Your task to perform on an android device: Open calendar and show me the fourth week of next month Image 0: 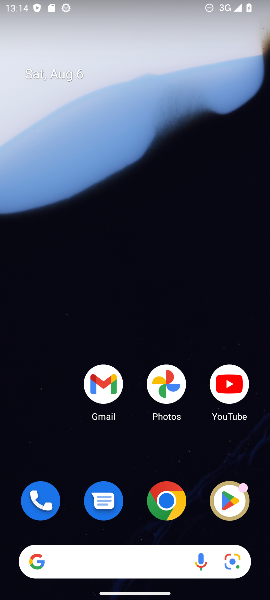
Step 0: drag from (128, 456) to (143, 95)
Your task to perform on an android device: Open calendar and show me the fourth week of next month Image 1: 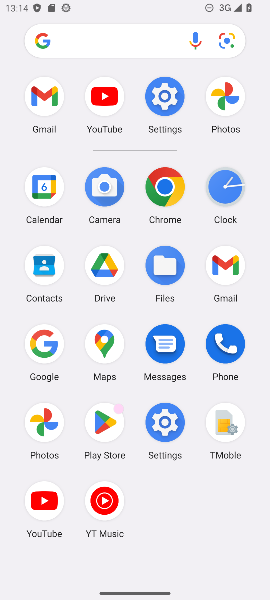
Step 1: click (55, 220)
Your task to perform on an android device: Open calendar and show me the fourth week of next month Image 2: 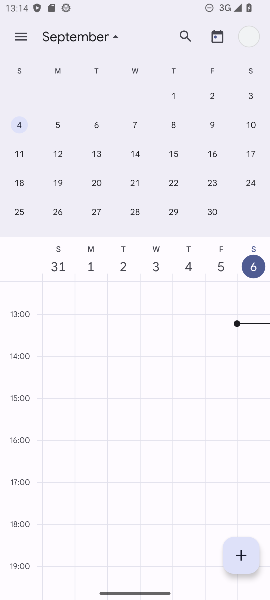
Step 2: click (23, 184)
Your task to perform on an android device: Open calendar and show me the fourth week of next month Image 3: 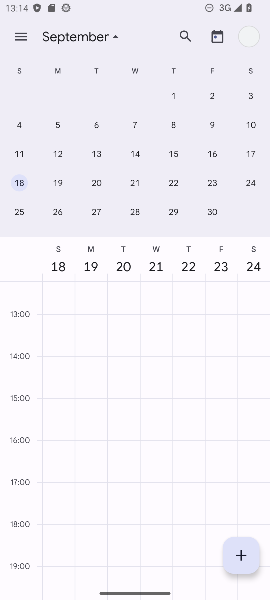
Step 3: task complete